Your task to perform on an android device: turn pop-ups off in chrome Image 0: 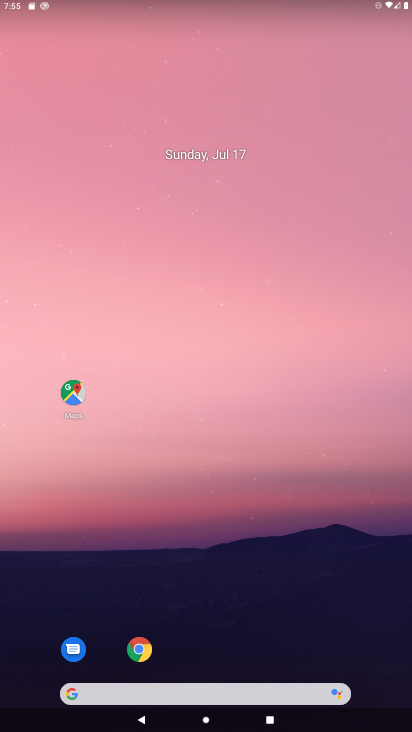
Step 0: click (135, 655)
Your task to perform on an android device: turn pop-ups off in chrome Image 1: 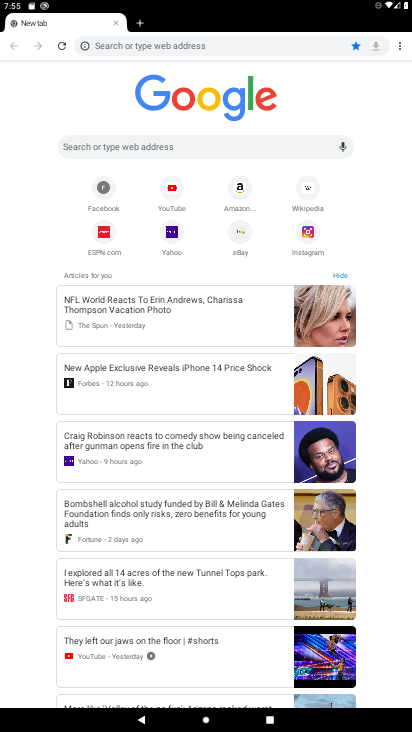
Step 1: click (398, 44)
Your task to perform on an android device: turn pop-ups off in chrome Image 2: 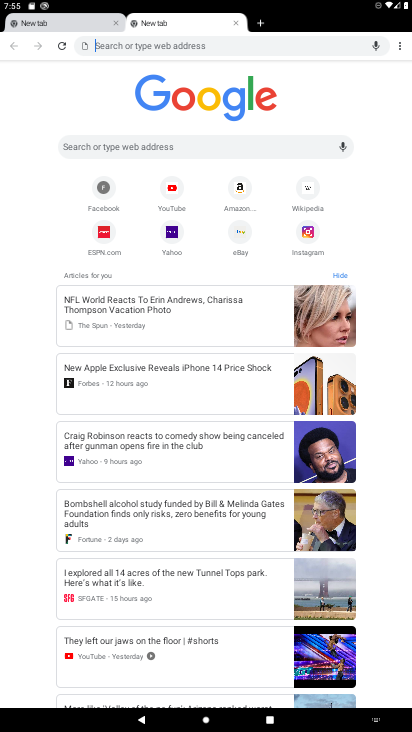
Step 2: drag from (397, 52) to (316, 210)
Your task to perform on an android device: turn pop-ups off in chrome Image 3: 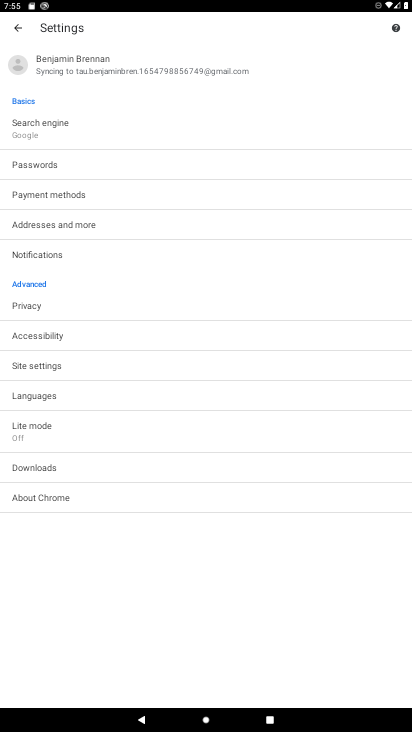
Step 3: drag from (235, 486) to (241, 273)
Your task to perform on an android device: turn pop-ups off in chrome Image 4: 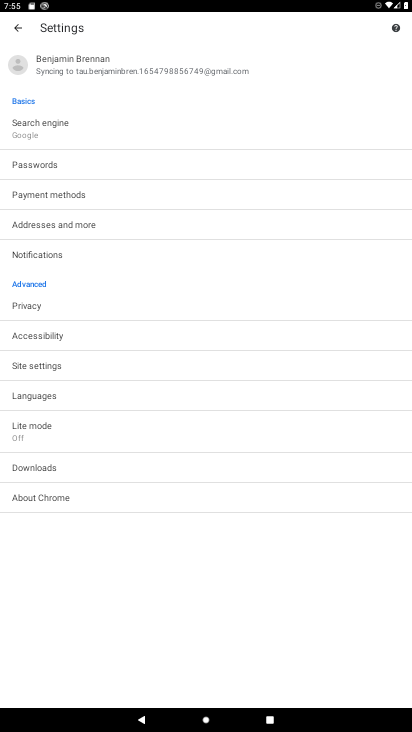
Step 4: click (36, 372)
Your task to perform on an android device: turn pop-ups off in chrome Image 5: 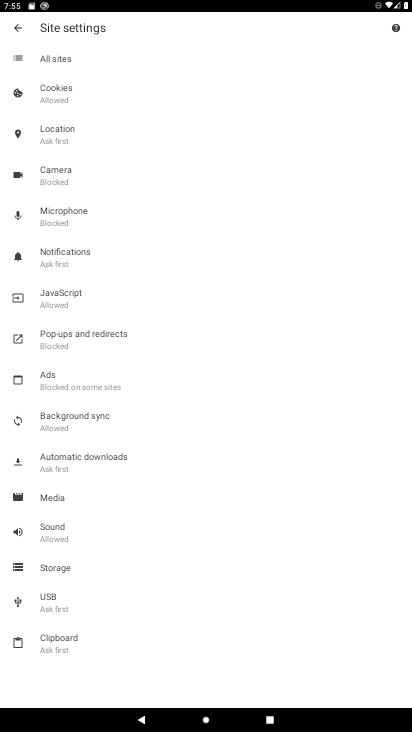
Step 5: drag from (99, 538) to (102, 281)
Your task to perform on an android device: turn pop-ups off in chrome Image 6: 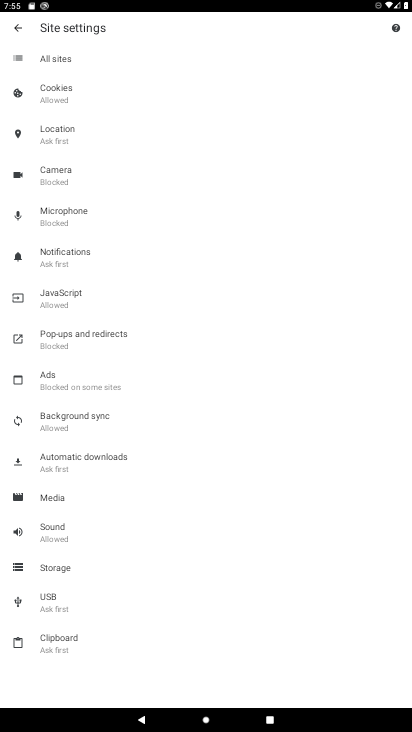
Step 6: click (114, 334)
Your task to perform on an android device: turn pop-ups off in chrome Image 7: 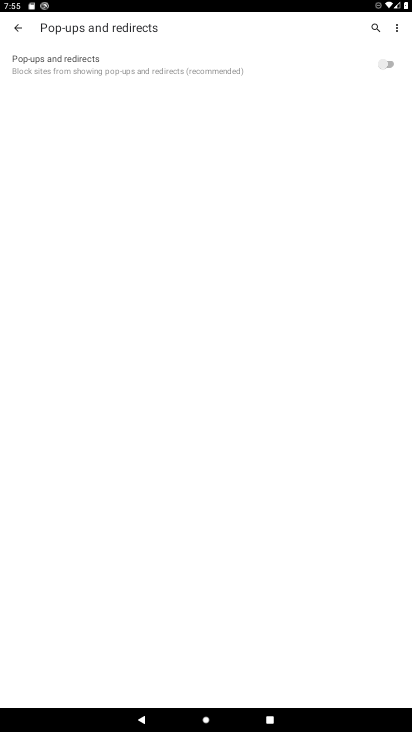
Step 7: task complete